Your task to perform on an android device: change text size in settings app Image 0: 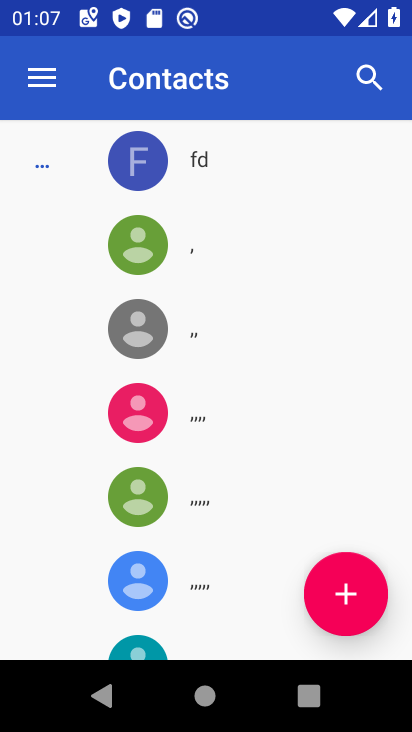
Step 0: press home button
Your task to perform on an android device: change text size in settings app Image 1: 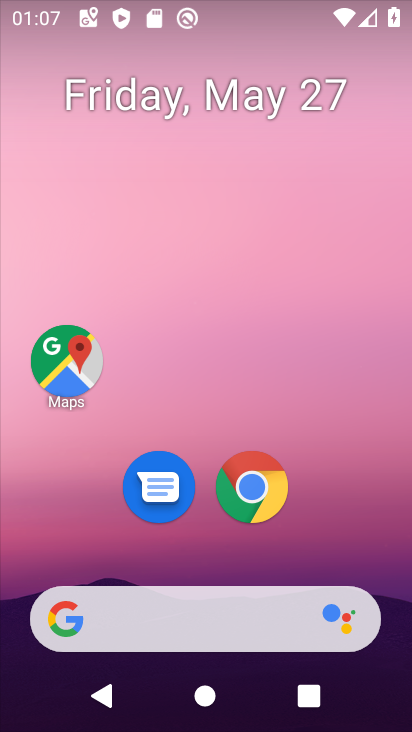
Step 1: drag from (140, 724) to (180, 99)
Your task to perform on an android device: change text size in settings app Image 2: 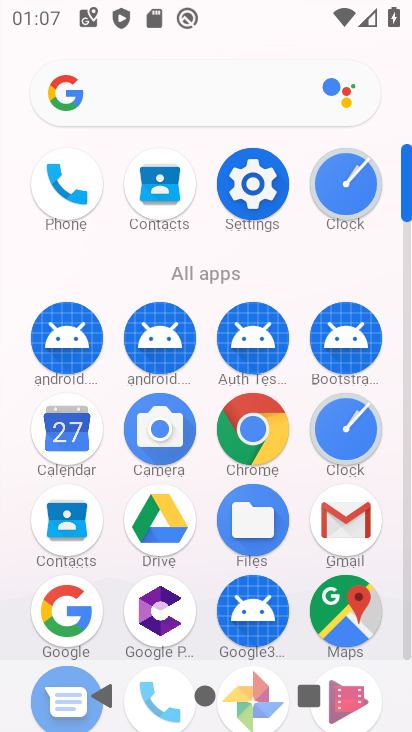
Step 2: click (251, 182)
Your task to perform on an android device: change text size in settings app Image 3: 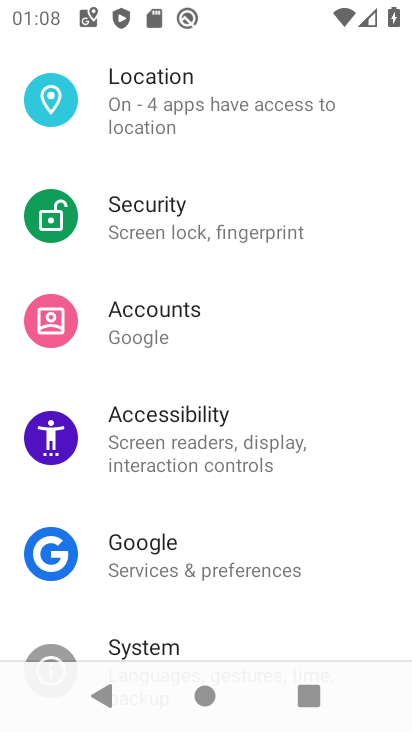
Step 3: drag from (222, 608) to (289, 210)
Your task to perform on an android device: change text size in settings app Image 4: 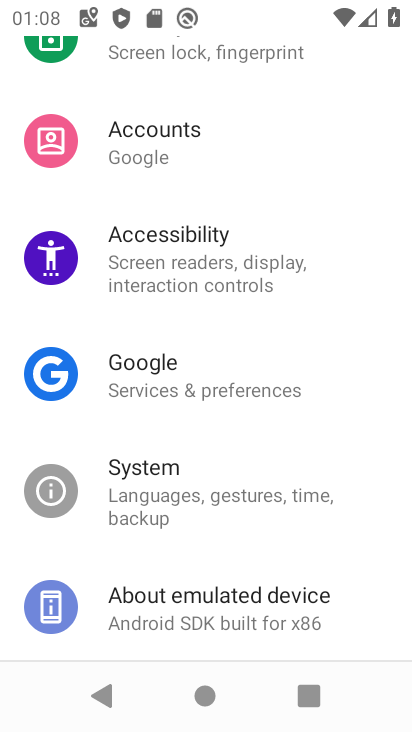
Step 4: drag from (319, 215) to (301, 582)
Your task to perform on an android device: change text size in settings app Image 5: 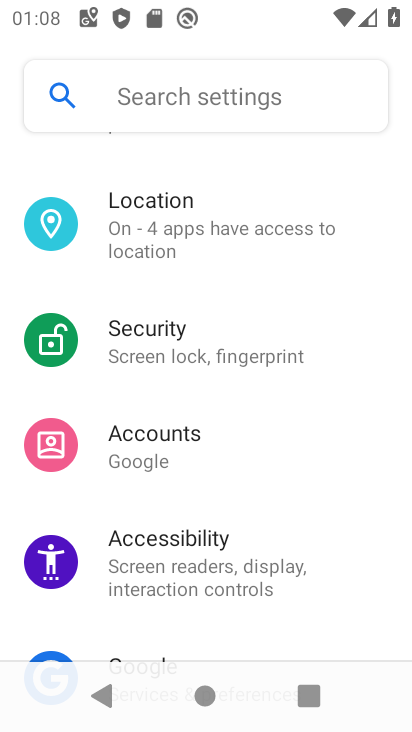
Step 5: drag from (322, 537) to (354, 241)
Your task to perform on an android device: change text size in settings app Image 6: 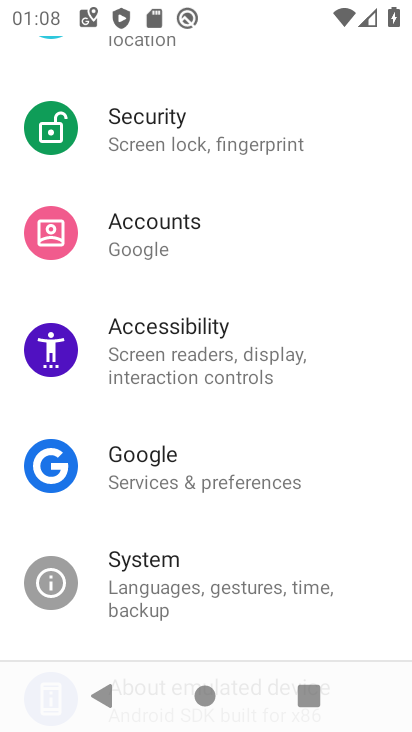
Step 6: drag from (354, 287) to (336, 621)
Your task to perform on an android device: change text size in settings app Image 7: 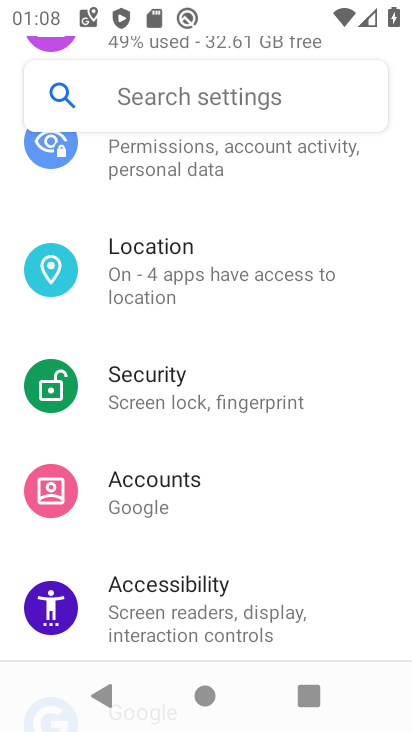
Step 7: drag from (299, 204) to (301, 529)
Your task to perform on an android device: change text size in settings app Image 8: 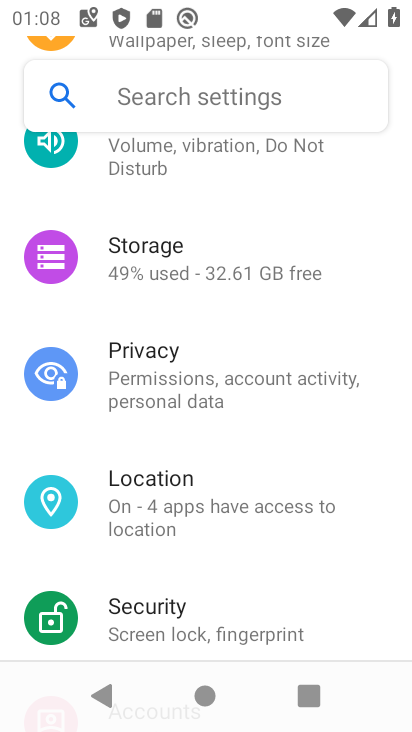
Step 8: drag from (277, 244) to (265, 486)
Your task to perform on an android device: change text size in settings app Image 9: 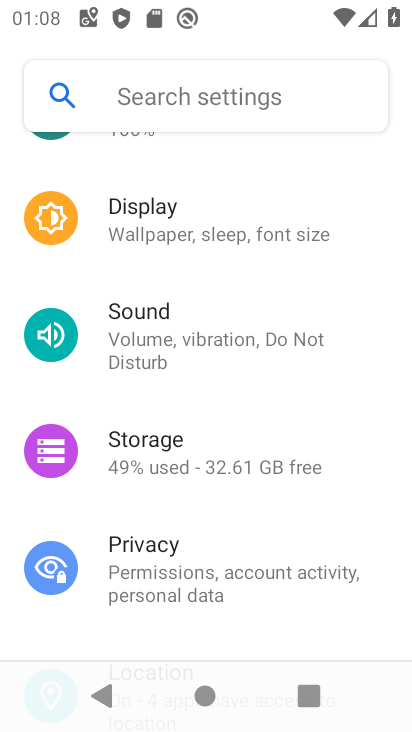
Step 9: click (194, 225)
Your task to perform on an android device: change text size in settings app Image 10: 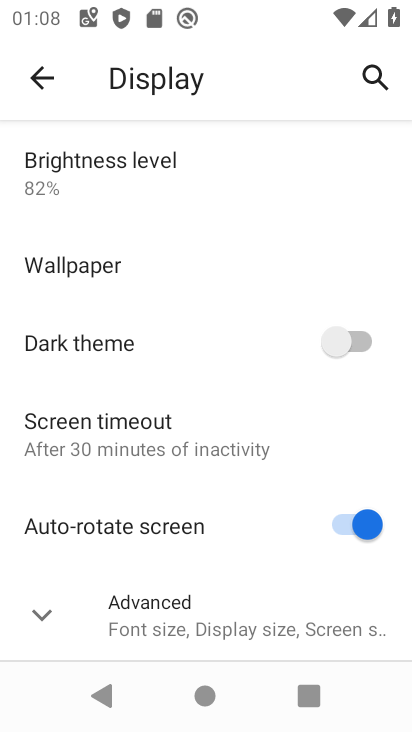
Step 10: click (185, 625)
Your task to perform on an android device: change text size in settings app Image 11: 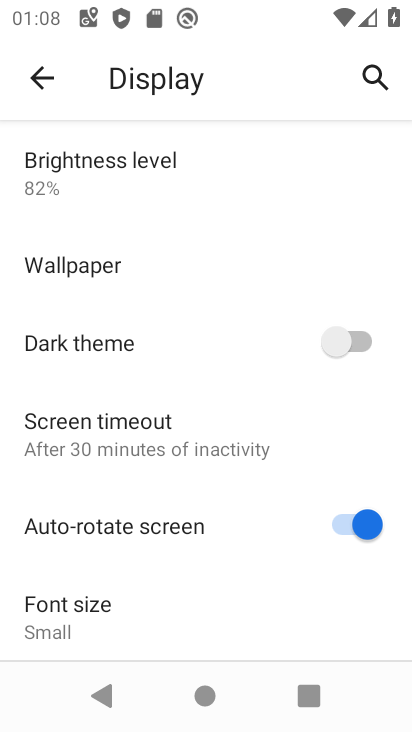
Step 11: click (101, 624)
Your task to perform on an android device: change text size in settings app Image 12: 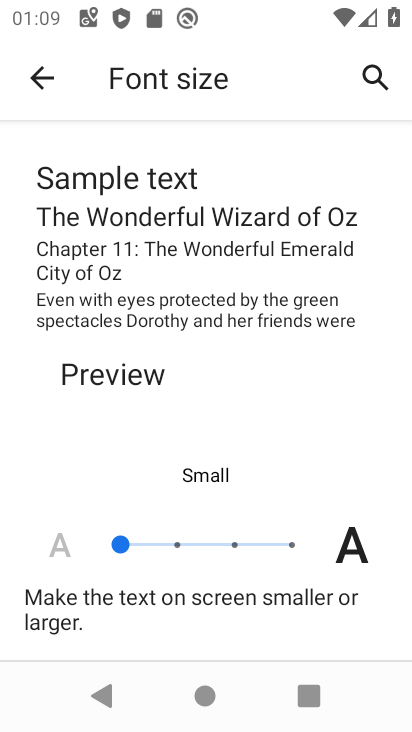
Step 12: click (173, 549)
Your task to perform on an android device: change text size in settings app Image 13: 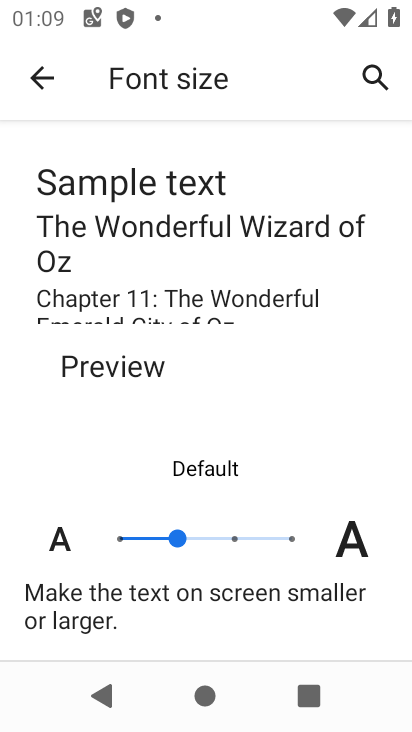
Step 13: task complete